Your task to perform on an android device: Go to Maps Image 0: 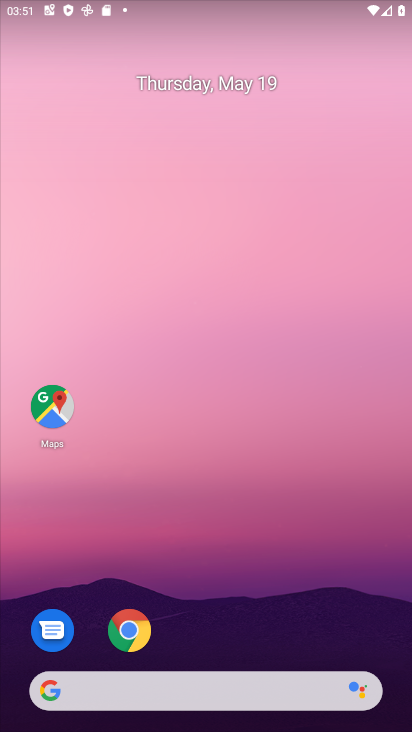
Step 0: click (47, 405)
Your task to perform on an android device: Go to Maps Image 1: 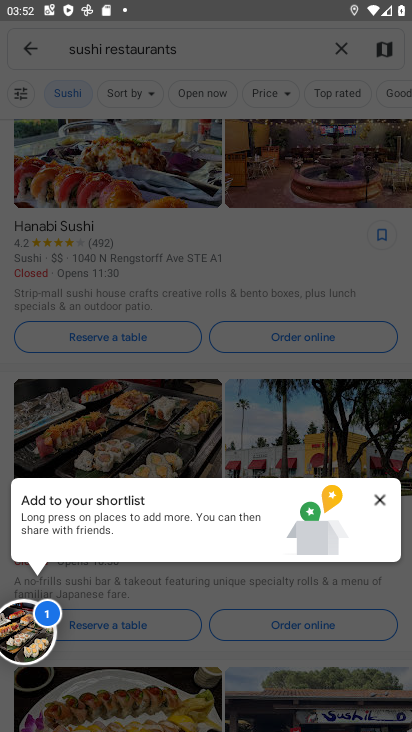
Step 1: click (380, 494)
Your task to perform on an android device: Go to Maps Image 2: 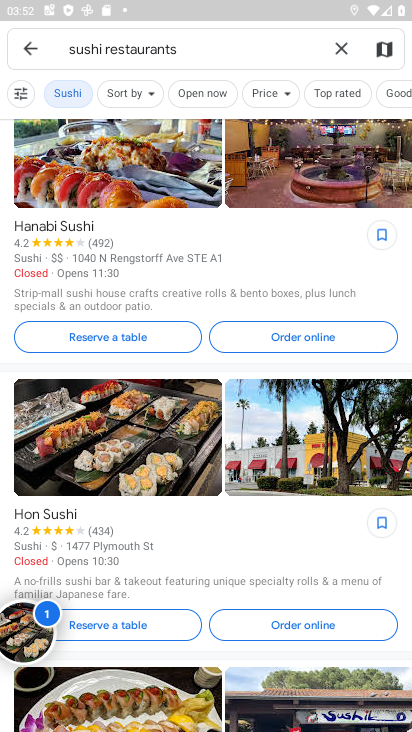
Step 2: click (339, 43)
Your task to perform on an android device: Go to Maps Image 3: 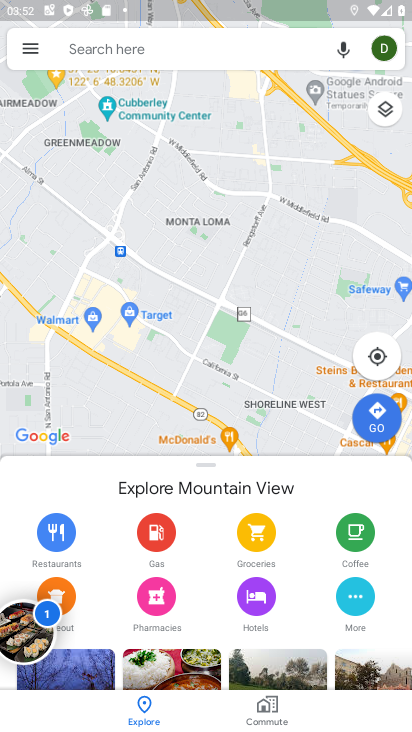
Step 3: task complete